Your task to perform on an android device: Is it going to rain this weekend? Image 0: 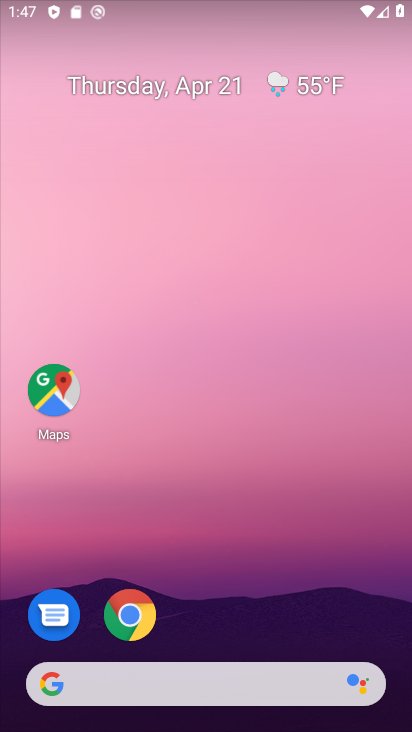
Step 0: drag from (243, 659) to (272, 308)
Your task to perform on an android device: Is it going to rain this weekend? Image 1: 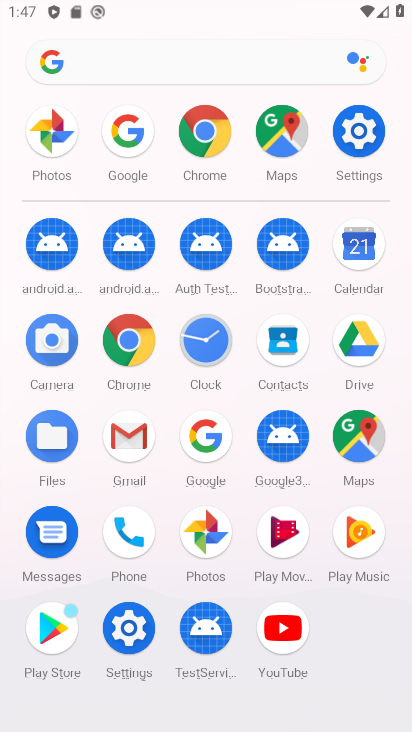
Step 1: click (212, 439)
Your task to perform on an android device: Is it going to rain this weekend? Image 2: 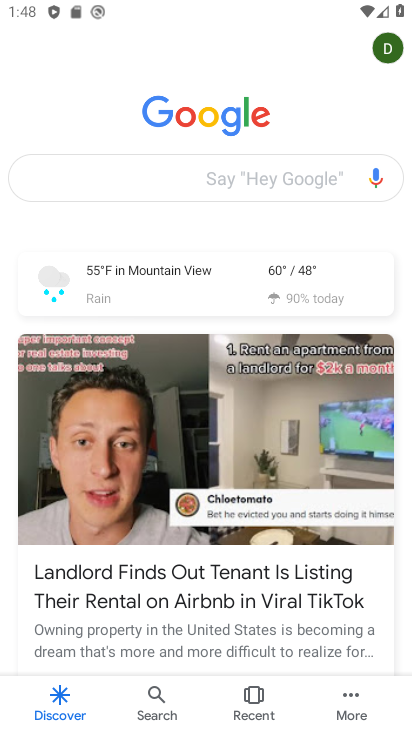
Step 2: click (190, 168)
Your task to perform on an android device: Is it going to rain this weekend? Image 3: 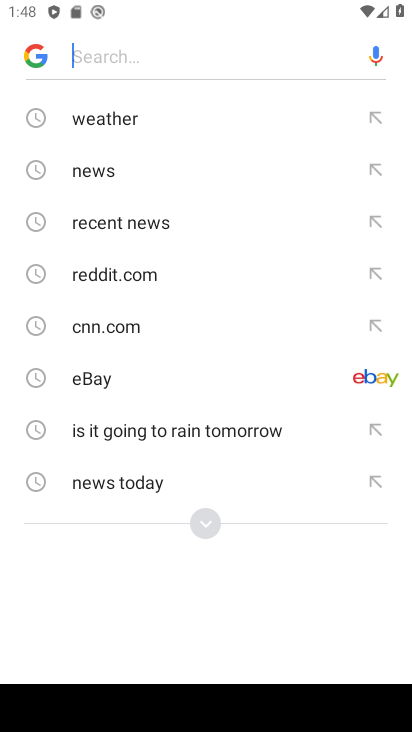
Step 3: type "is it going to rain this weekend?"
Your task to perform on an android device: Is it going to rain this weekend? Image 4: 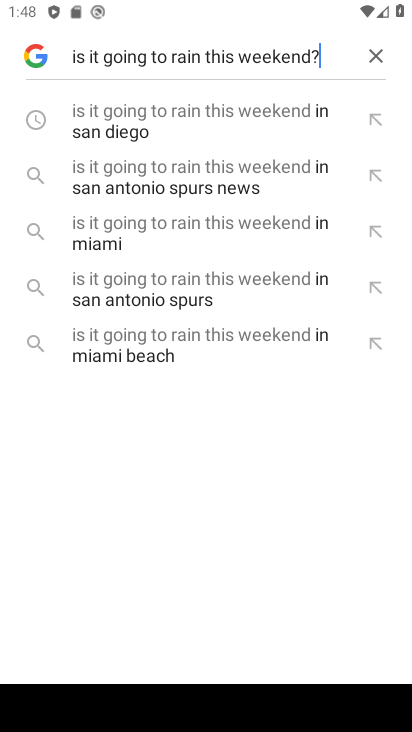
Step 4: click (92, 111)
Your task to perform on an android device: Is it going to rain this weekend? Image 5: 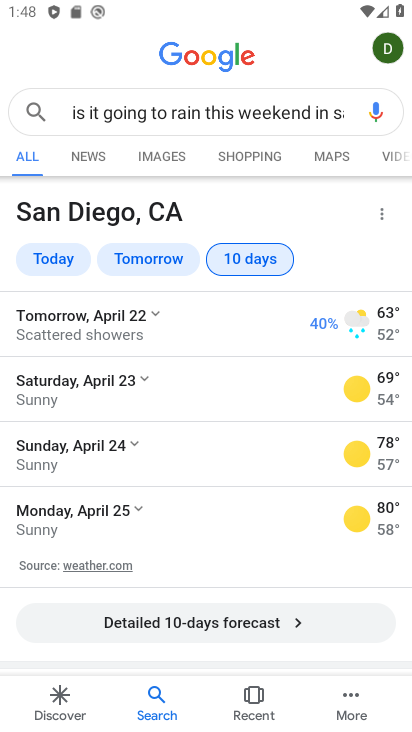
Step 5: task complete